Your task to perform on an android device: change the clock display to show seconds Image 0: 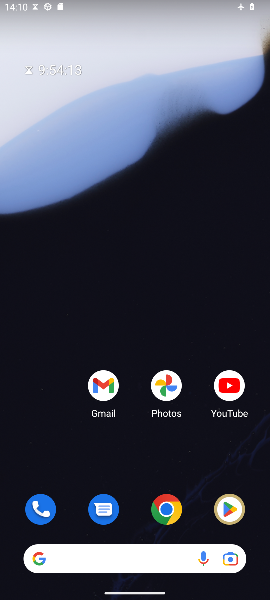
Step 0: drag from (130, 523) to (158, 61)
Your task to perform on an android device: change the clock display to show seconds Image 1: 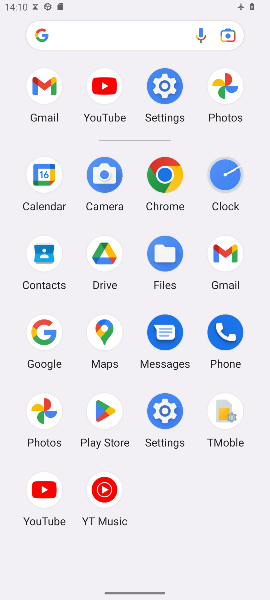
Step 1: click (230, 175)
Your task to perform on an android device: change the clock display to show seconds Image 2: 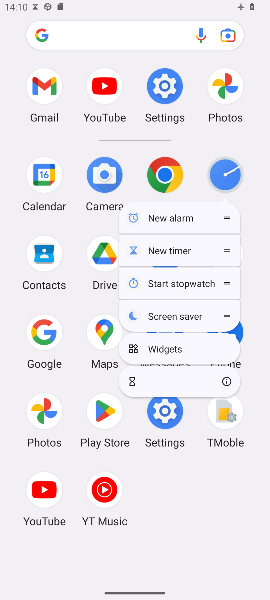
Step 2: click (219, 179)
Your task to perform on an android device: change the clock display to show seconds Image 3: 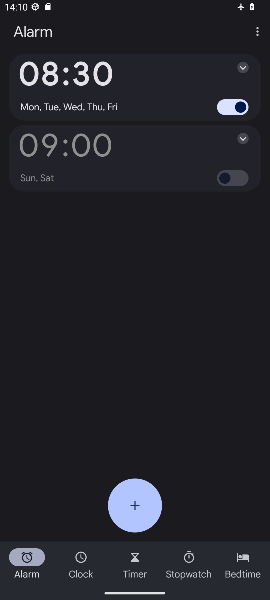
Step 3: click (256, 28)
Your task to perform on an android device: change the clock display to show seconds Image 4: 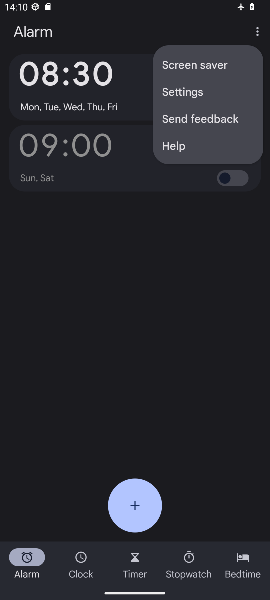
Step 4: click (181, 91)
Your task to perform on an android device: change the clock display to show seconds Image 5: 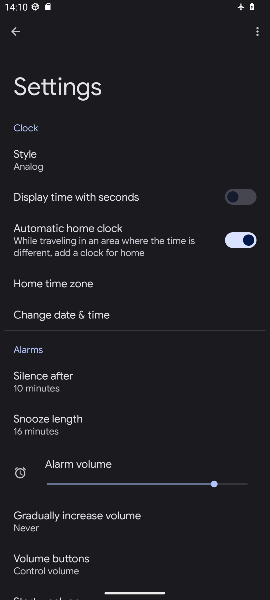
Step 5: click (232, 201)
Your task to perform on an android device: change the clock display to show seconds Image 6: 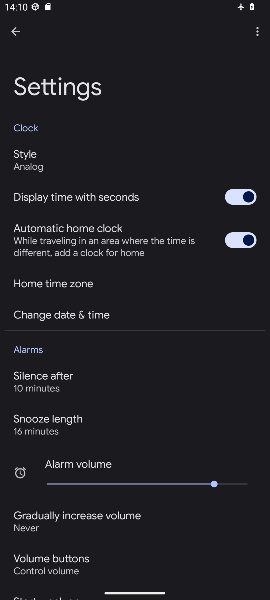
Step 6: task complete